Your task to perform on an android device: Open privacy settings Image 0: 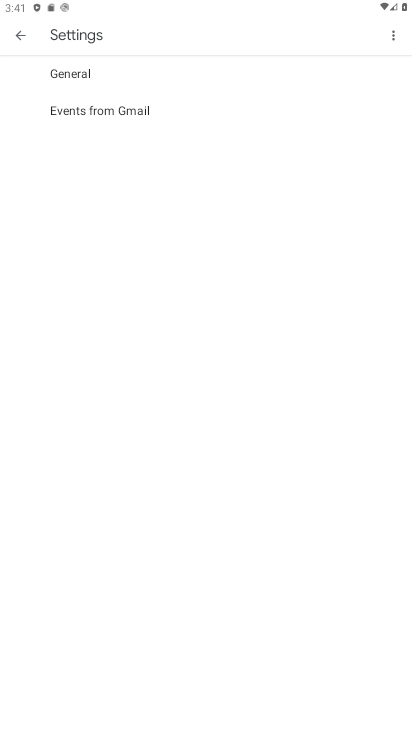
Step 0: press home button
Your task to perform on an android device: Open privacy settings Image 1: 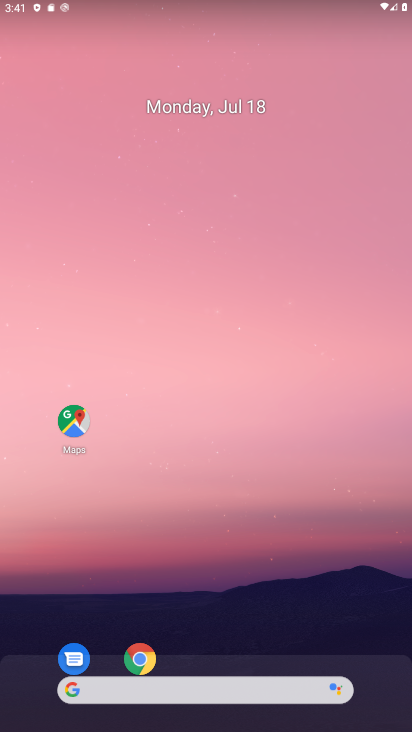
Step 1: drag from (287, 722) to (353, 3)
Your task to perform on an android device: Open privacy settings Image 2: 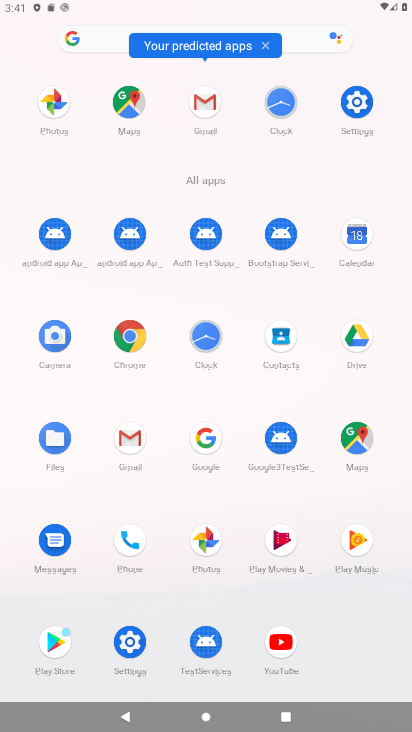
Step 2: click (364, 100)
Your task to perform on an android device: Open privacy settings Image 3: 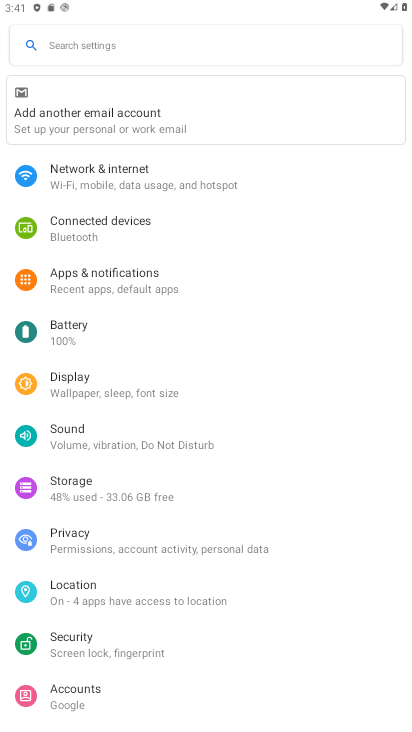
Step 3: click (91, 540)
Your task to perform on an android device: Open privacy settings Image 4: 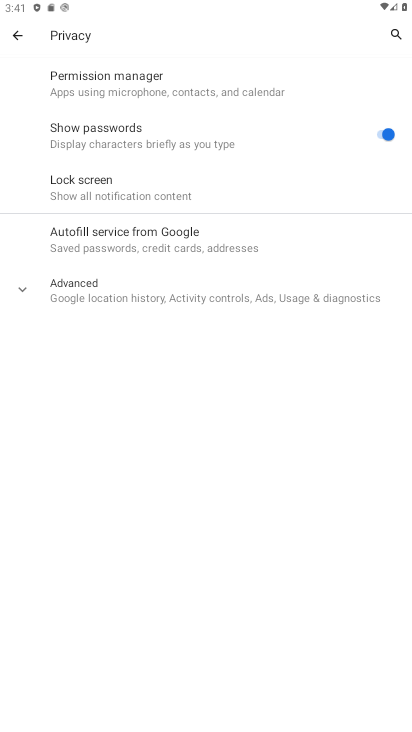
Step 4: task complete